Your task to perform on an android device: make emails show in primary in the gmail app Image 0: 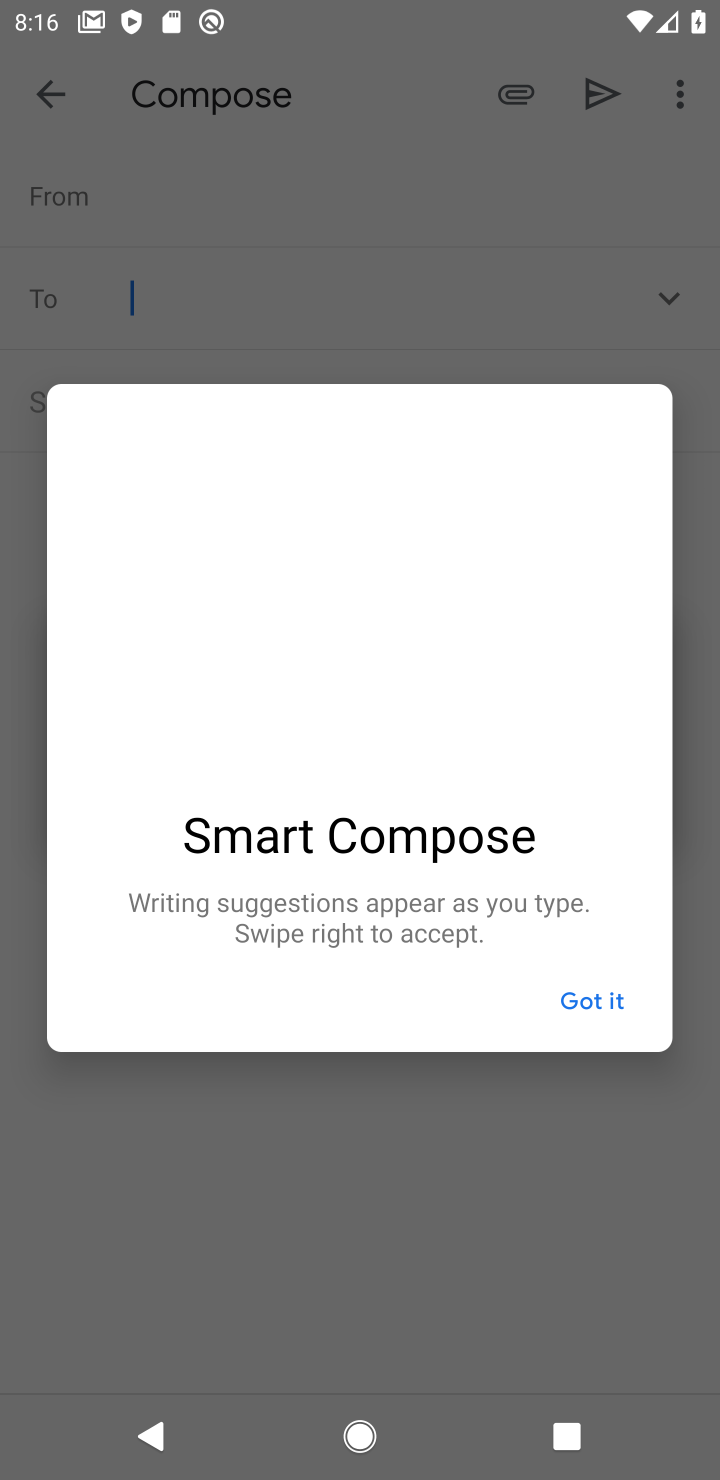
Step 0: press back button
Your task to perform on an android device: make emails show in primary in the gmail app Image 1: 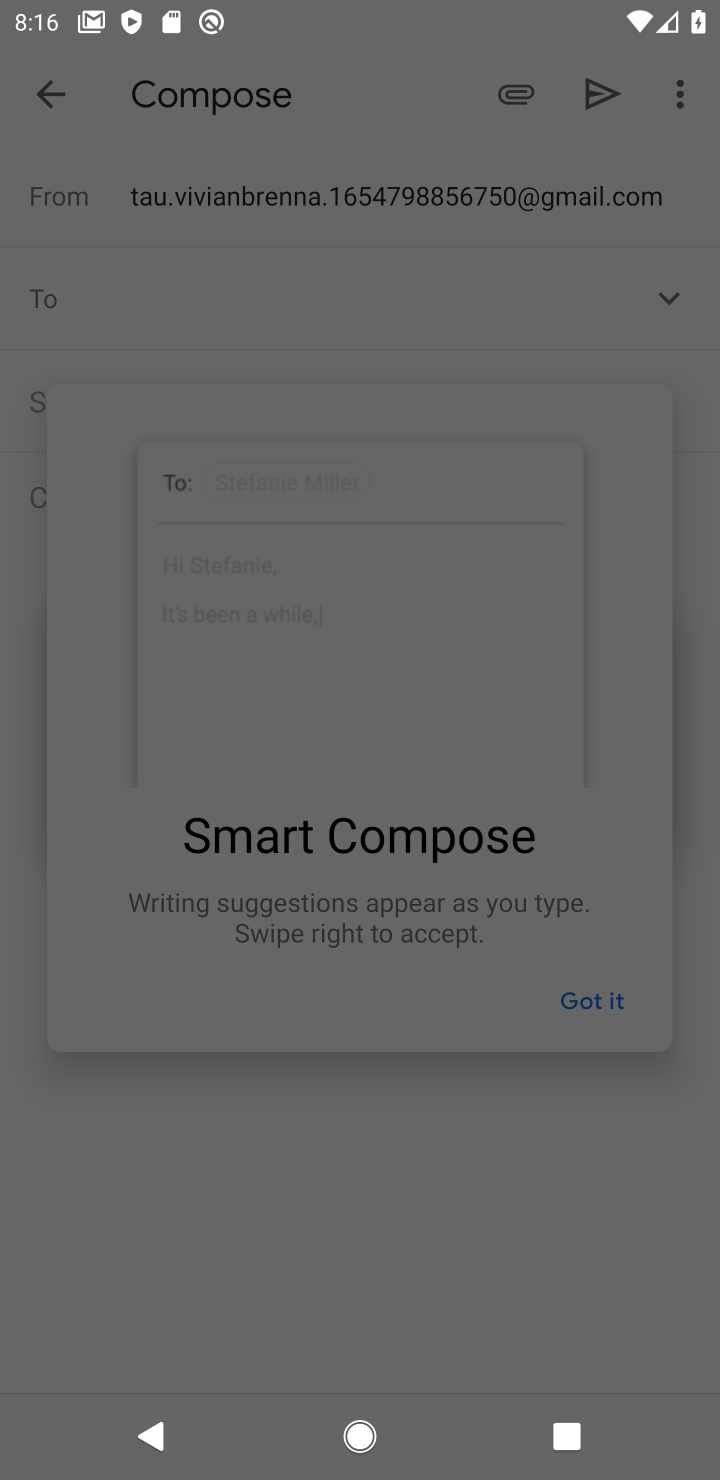
Step 1: press home button
Your task to perform on an android device: make emails show in primary in the gmail app Image 2: 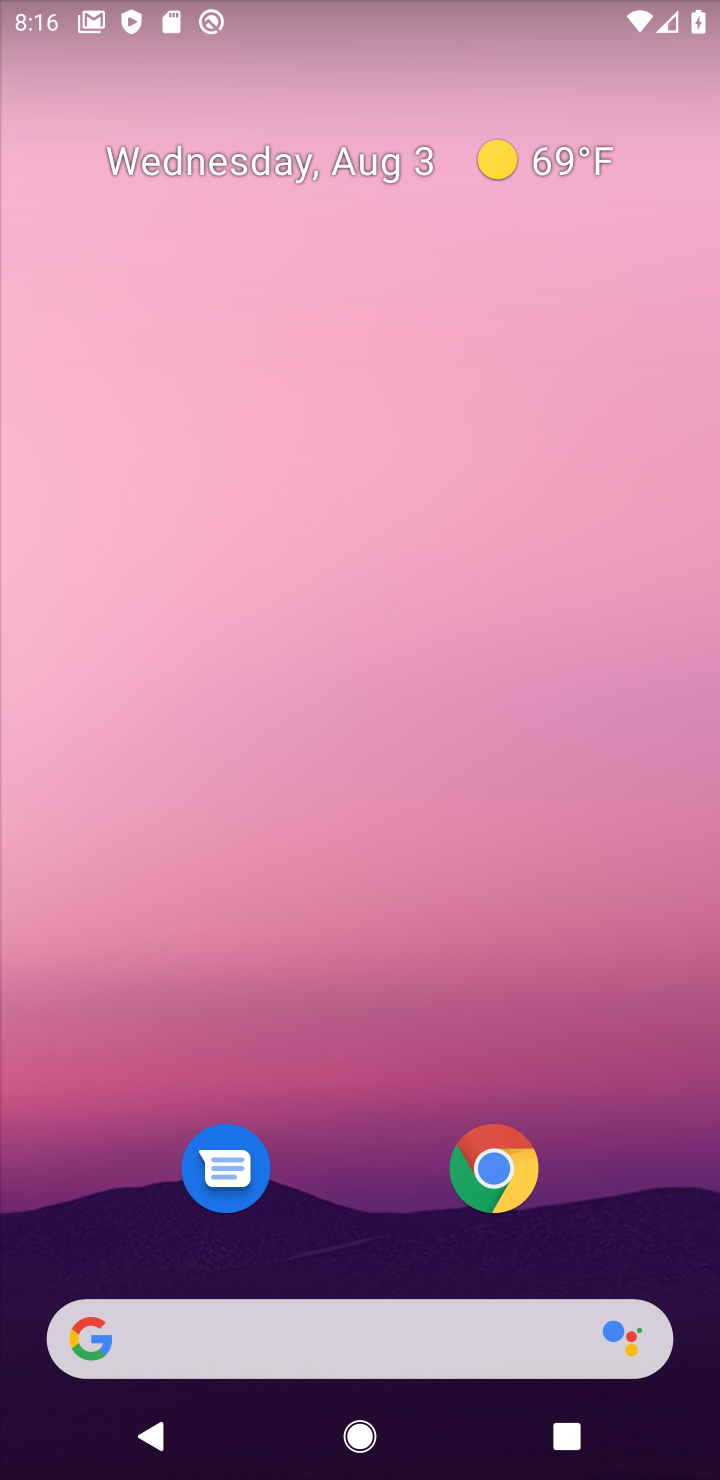
Step 2: drag from (444, 1297) to (300, 79)
Your task to perform on an android device: make emails show in primary in the gmail app Image 3: 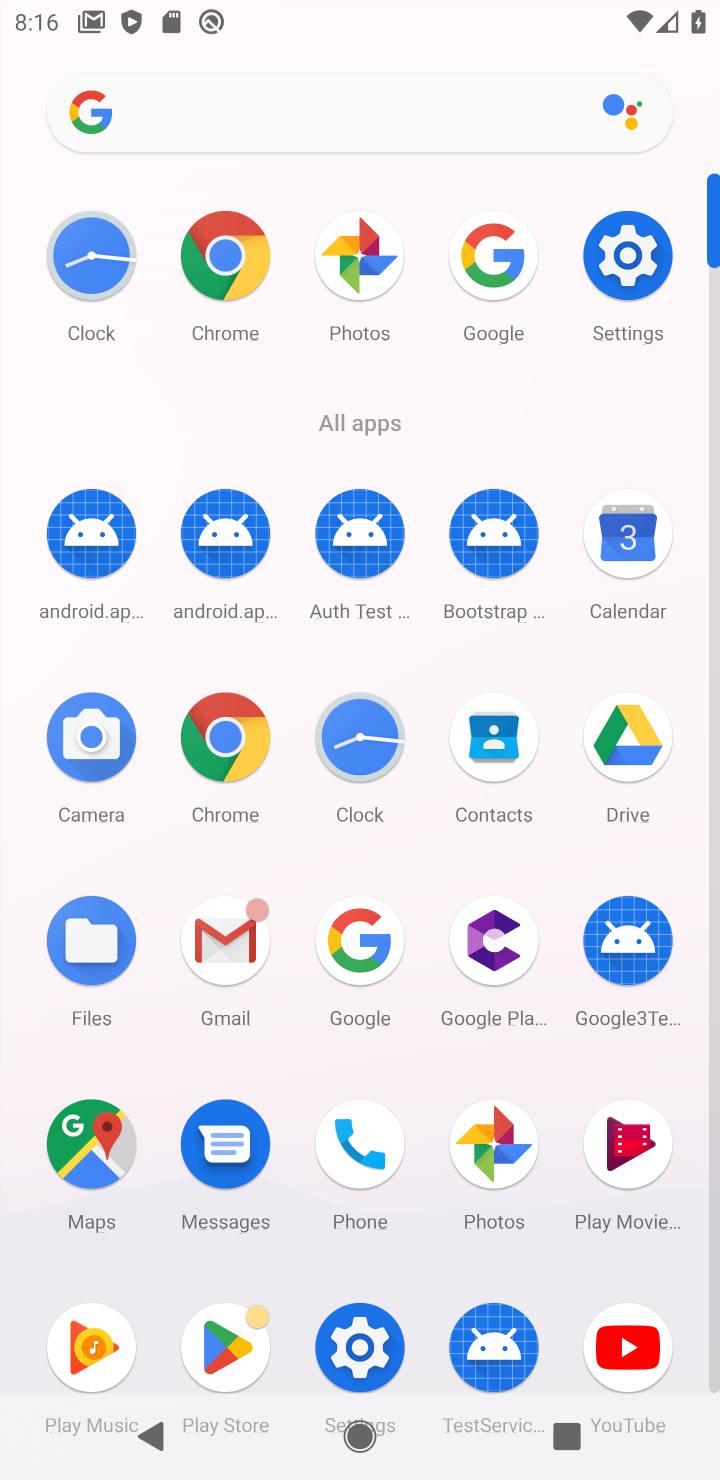
Step 3: click (239, 950)
Your task to perform on an android device: make emails show in primary in the gmail app Image 4: 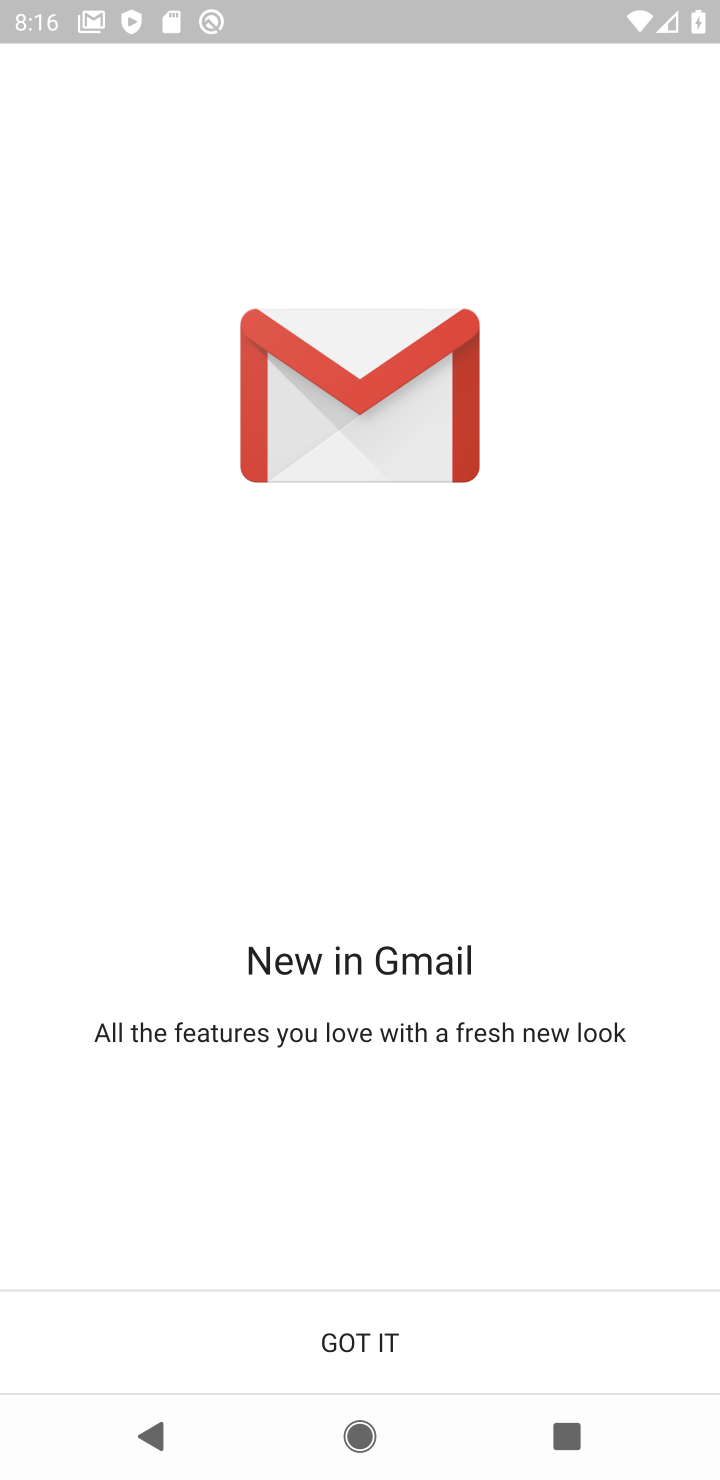
Step 4: click (437, 1325)
Your task to perform on an android device: make emails show in primary in the gmail app Image 5: 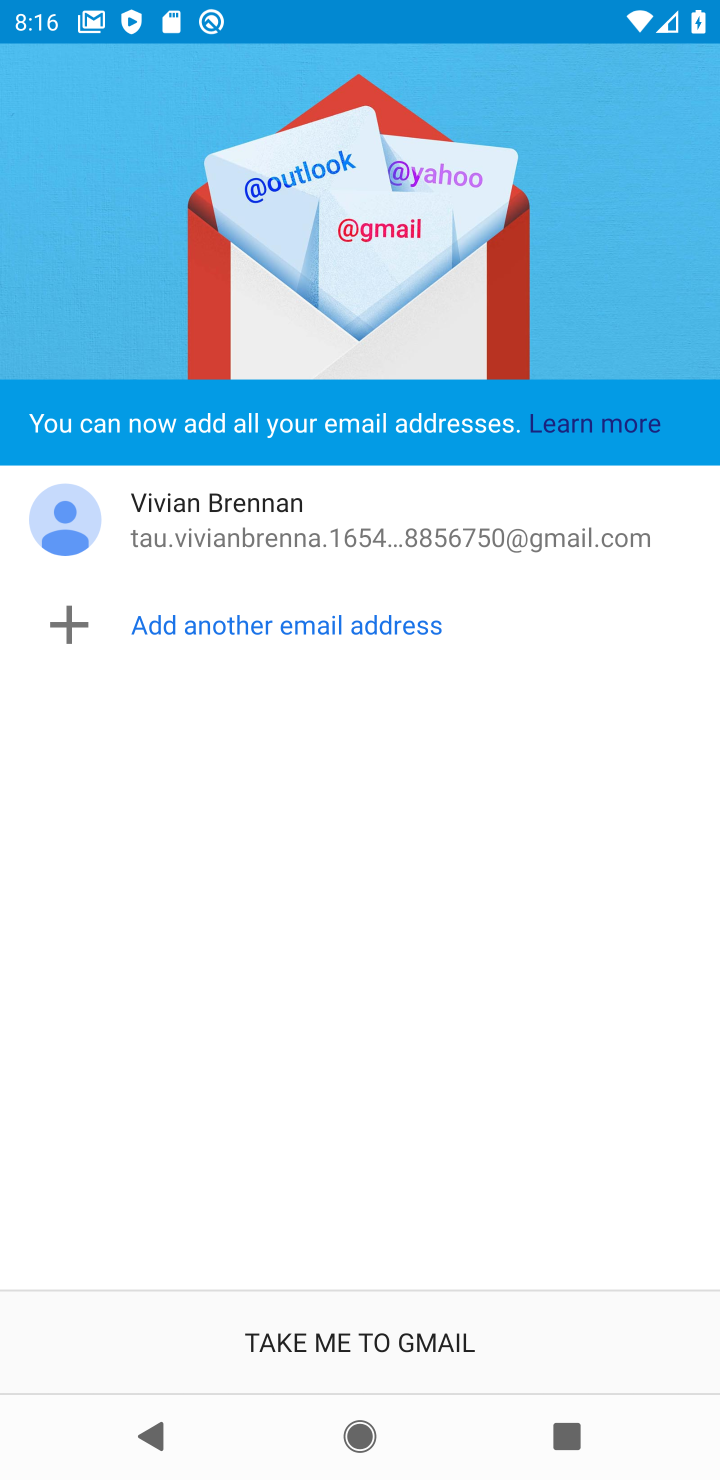
Step 5: click (428, 1332)
Your task to perform on an android device: make emails show in primary in the gmail app Image 6: 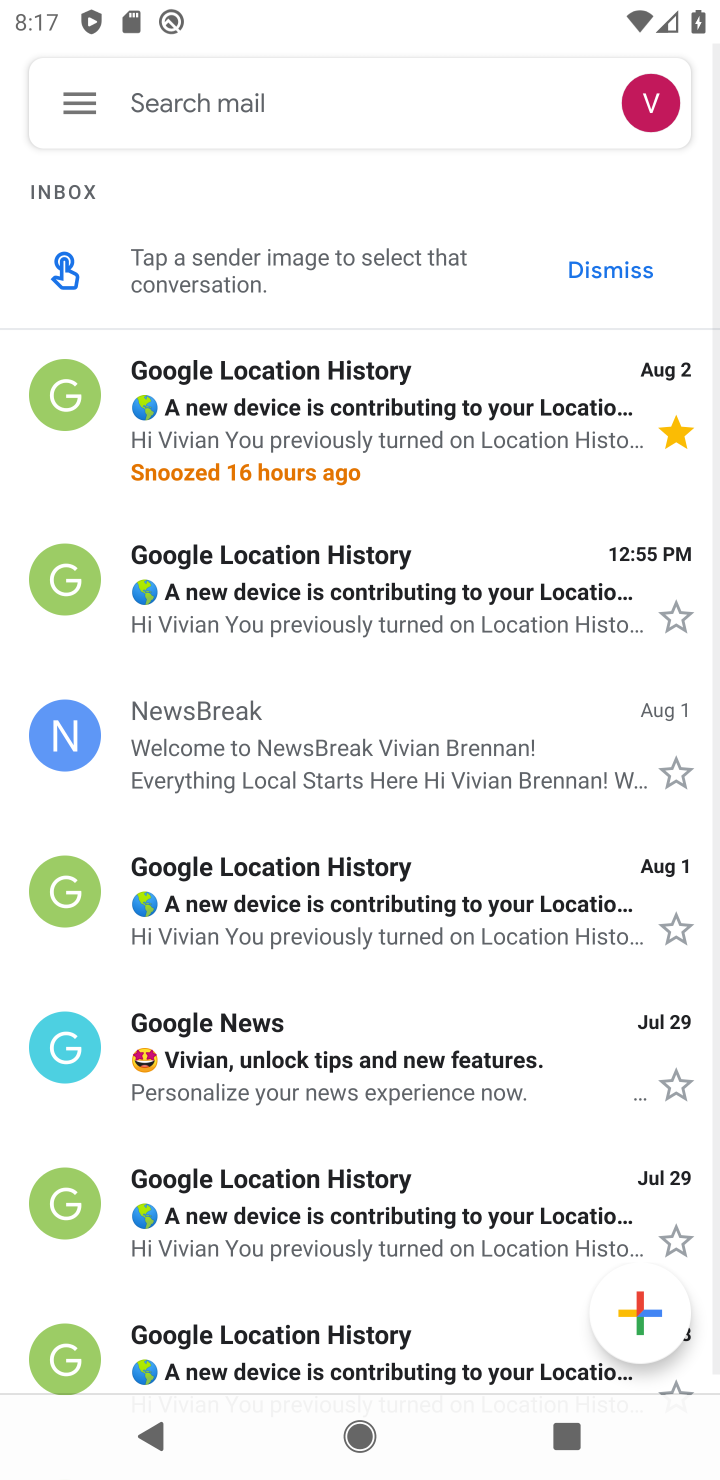
Step 6: click (51, 99)
Your task to perform on an android device: make emails show in primary in the gmail app Image 7: 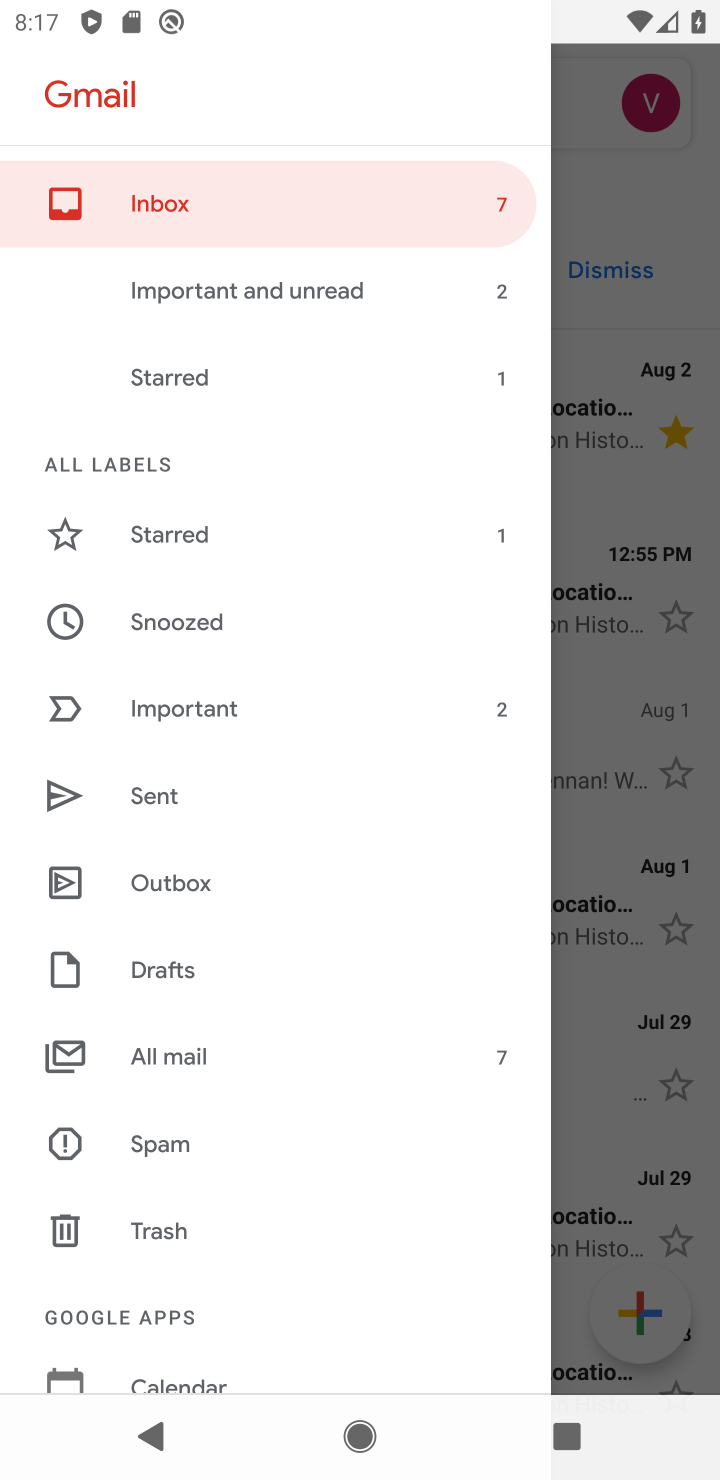
Step 7: drag from (232, 1178) to (193, 163)
Your task to perform on an android device: make emails show in primary in the gmail app Image 8: 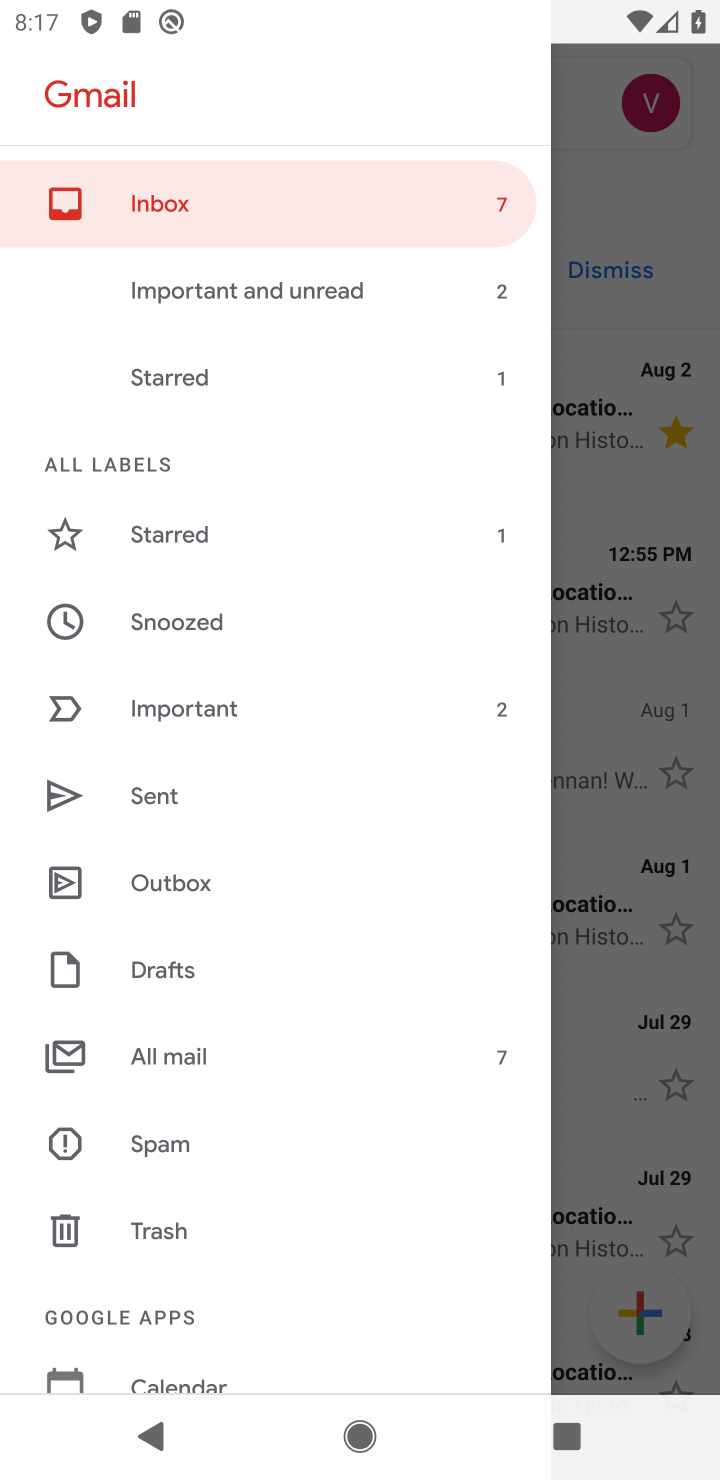
Step 8: drag from (345, 1057) to (415, 289)
Your task to perform on an android device: make emails show in primary in the gmail app Image 9: 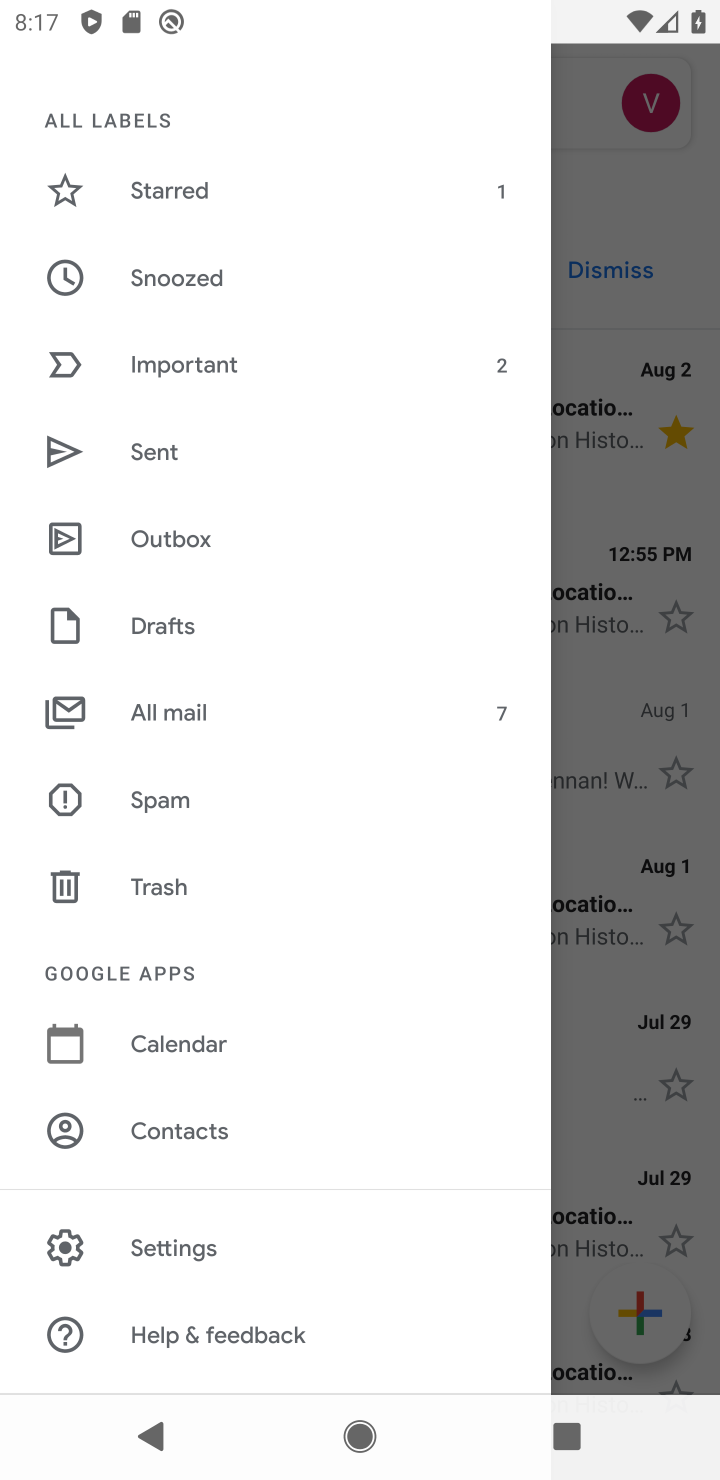
Step 9: click (206, 1245)
Your task to perform on an android device: make emails show in primary in the gmail app Image 10: 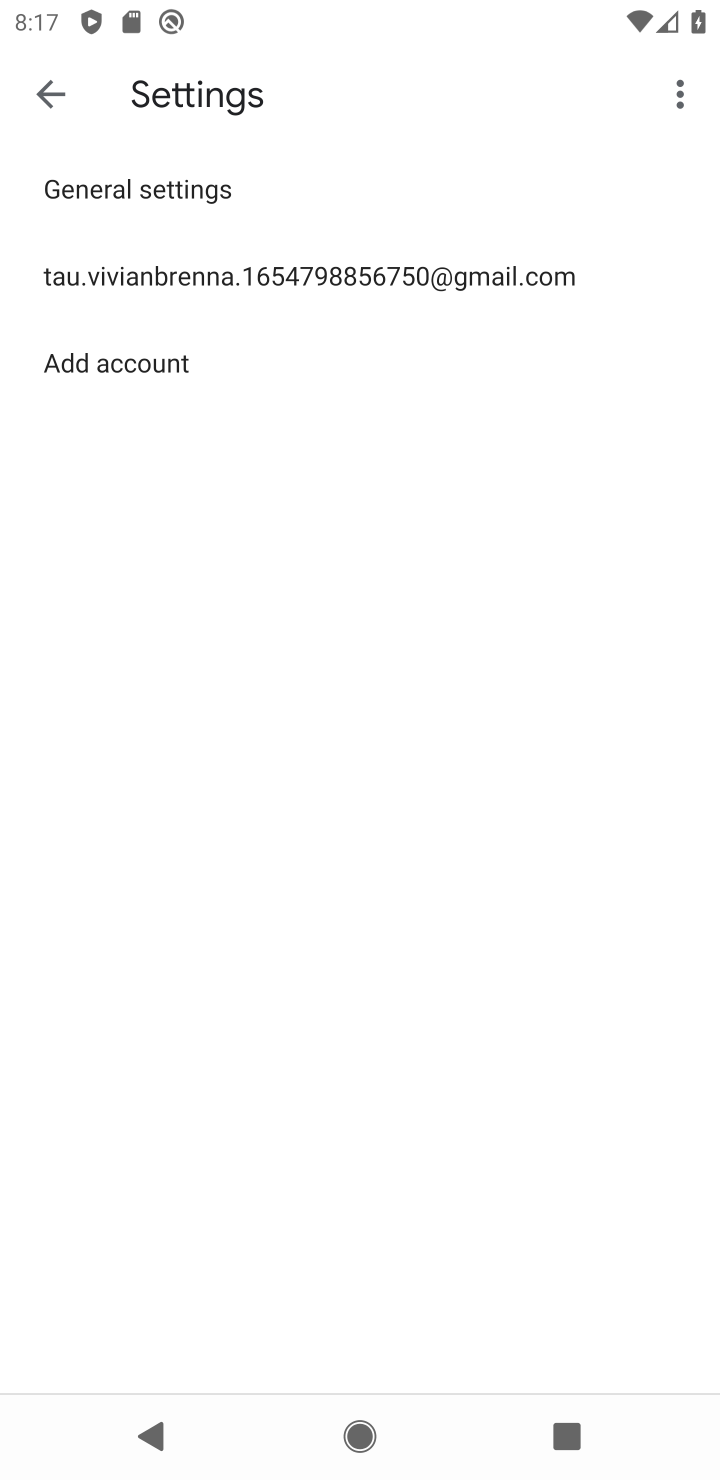
Step 10: click (242, 281)
Your task to perform on an android device: make emails show in primary in the gmail app Image 11: 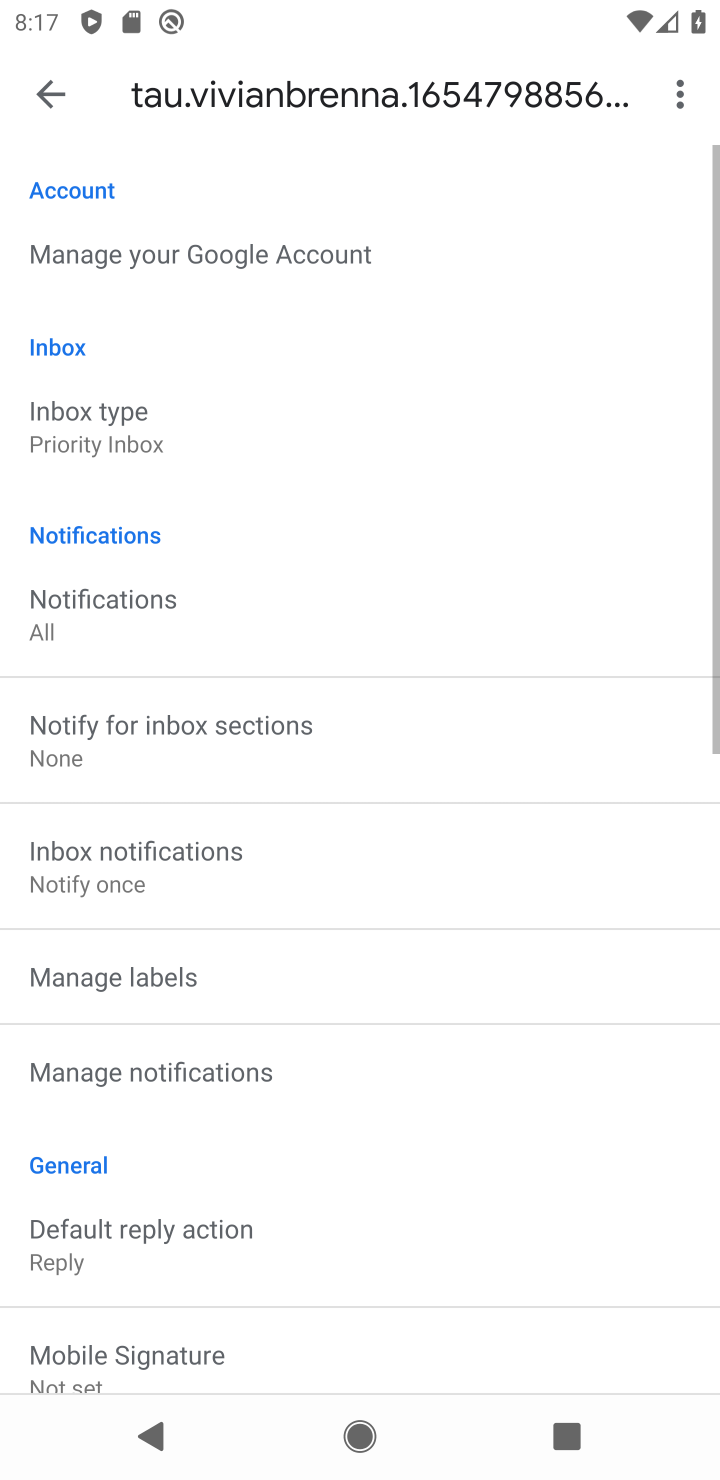
Step 11: click (152, 455)
Your task to perform on an android device: make emails show in primary in the gmail app Image 12: 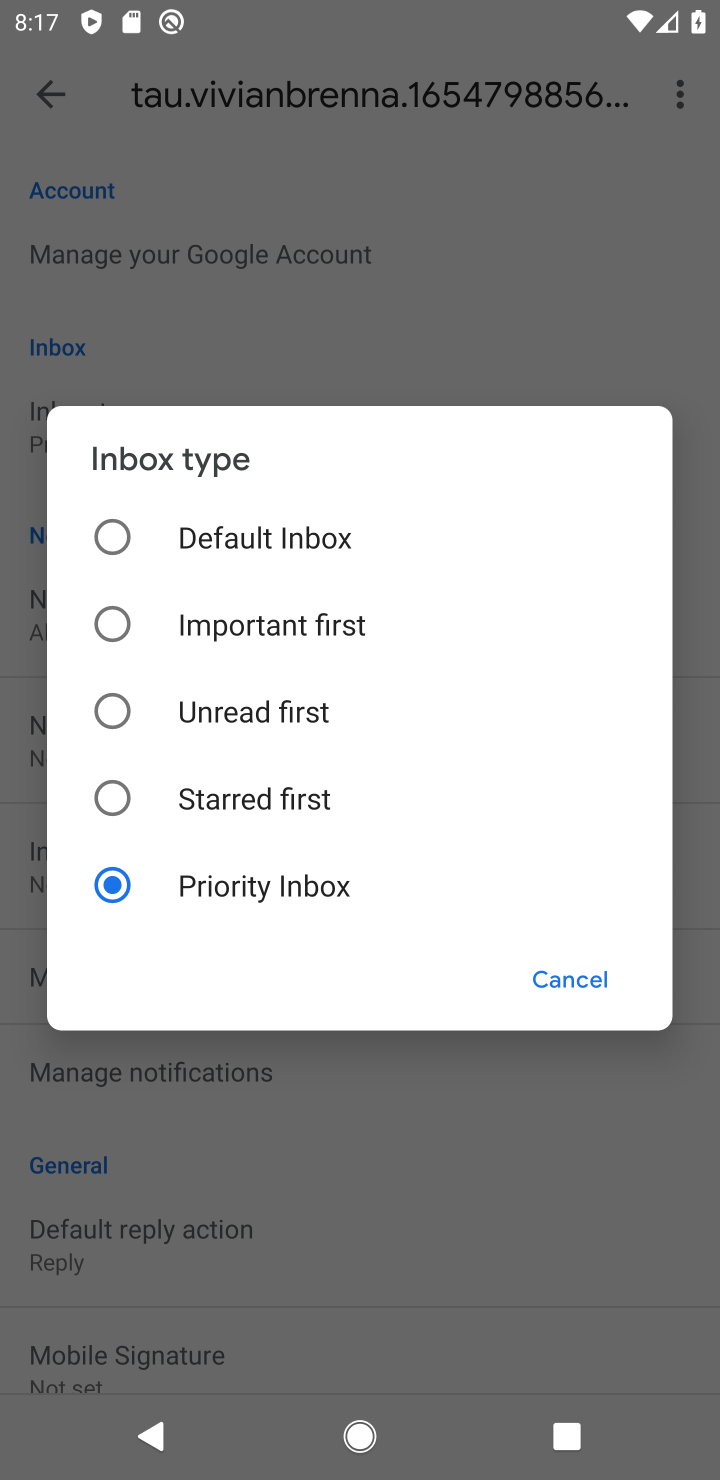
Step 12: click (235, 545)
Your task to perform on an android device: make emails show in primary in the gmail app Image 13: 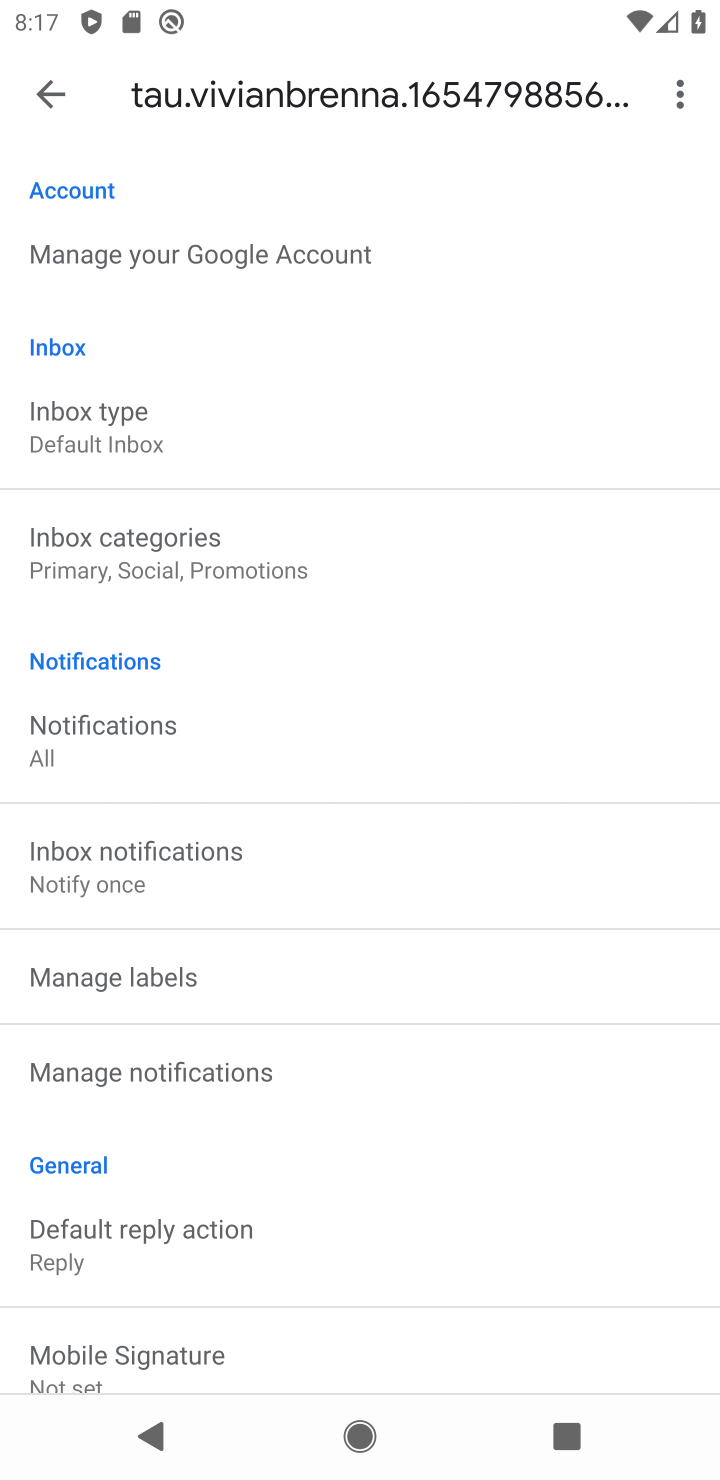
Step 13: click (29, 79)
Your task to perform on an android device: make emails show in primary in the gmail app Image 14: 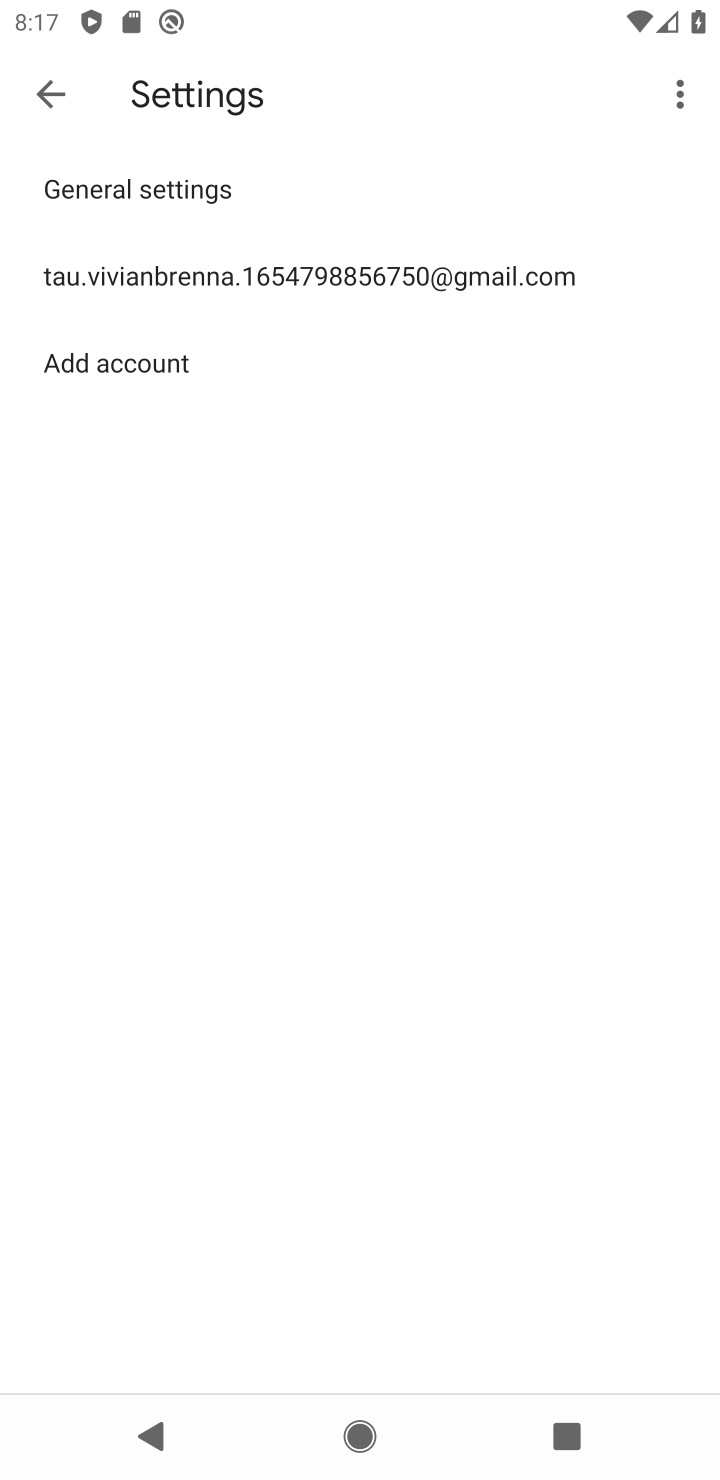
Step 14: click (43, 99)
Your task to perform on an android device: make emails show in primary in the gmail app Image 15: 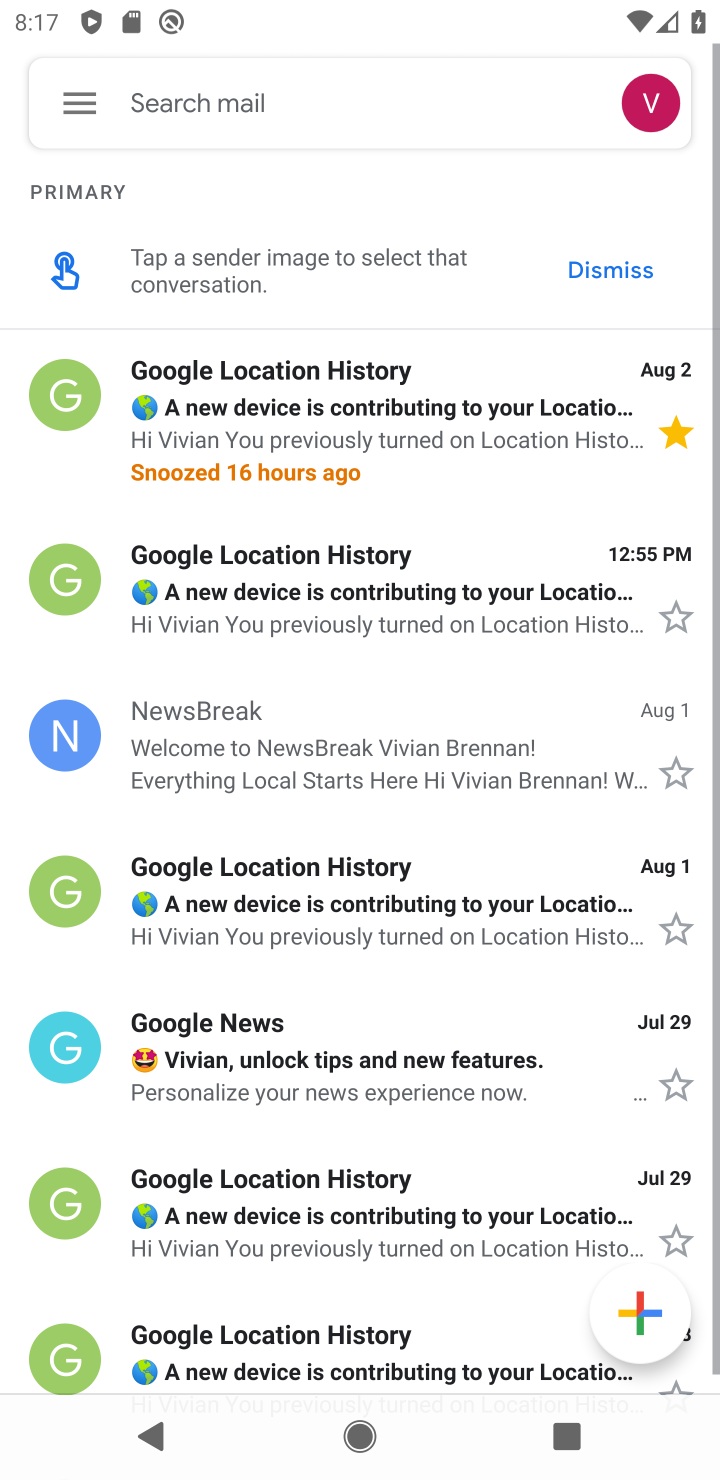
Step 15: task complete